Your task to perform on an android device: Check the best rated table lamp on Crate and Barrel Image 0: 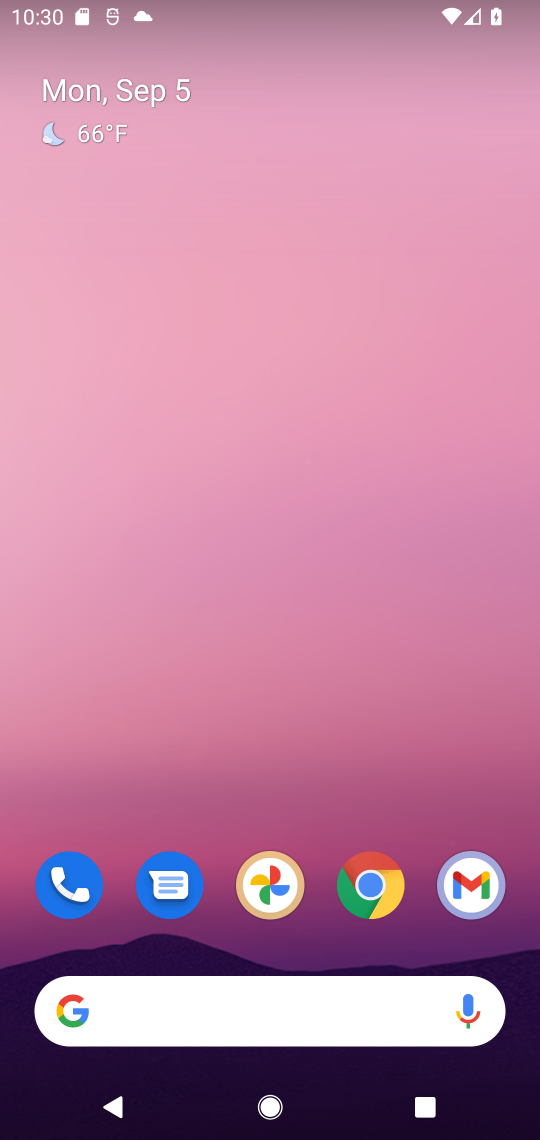
Step 0: drag from (339, 972) to (399, 23)
Your task to perform on an android device: Check the best rated table lamp on Crate and Barrel Image 1: 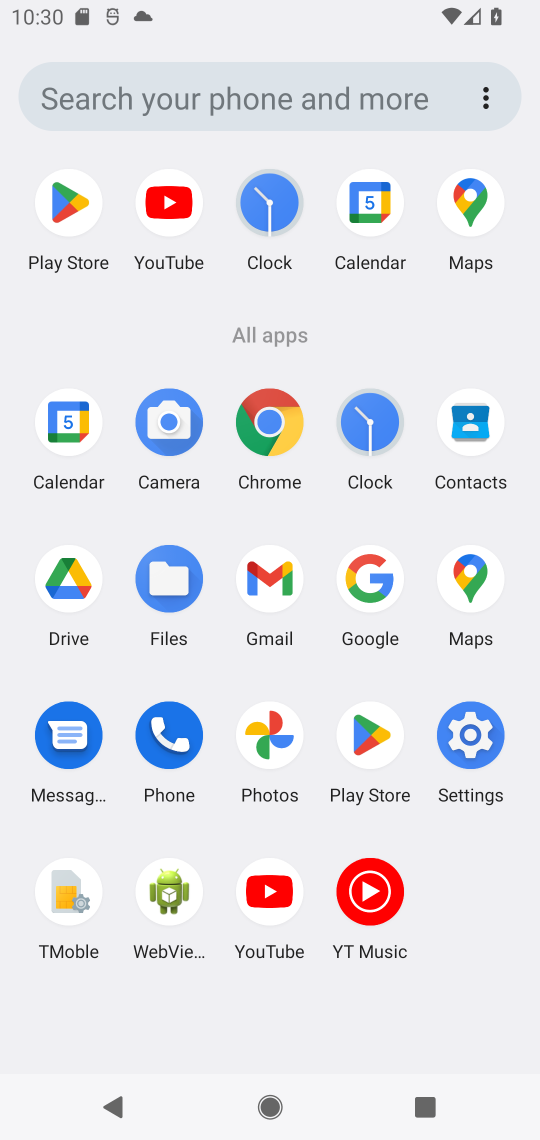
Step 1: click (268, 415)
Your task to perform on an android device: Check the best rated table lamp on Crate and Barrel Image 2: 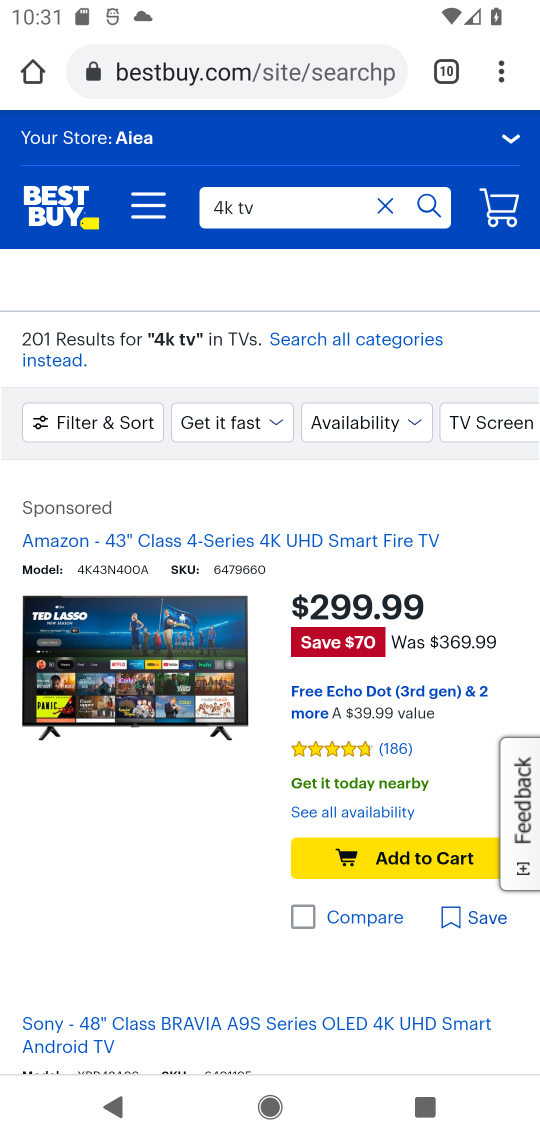
Step 2: drag from (502, 83) to (257, 230)
Your task to perform on an android device: Check the best rated table lamp on Crate and Barrel Image 3: 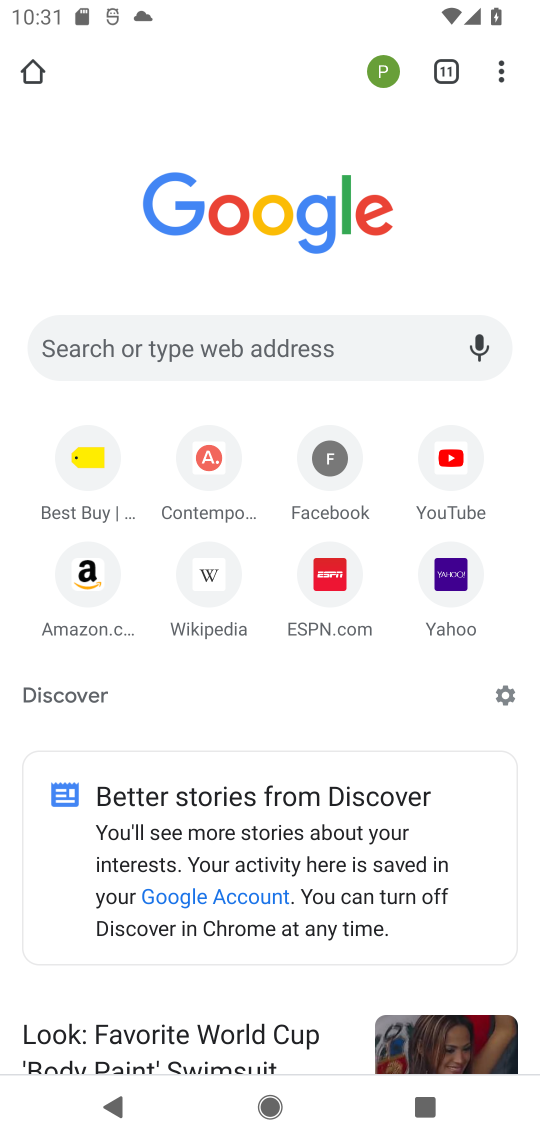
Step 3: click (287, 349)
Your task to perform on an android device: Check the best rated table lamp on Crate and Barrel Image 4: 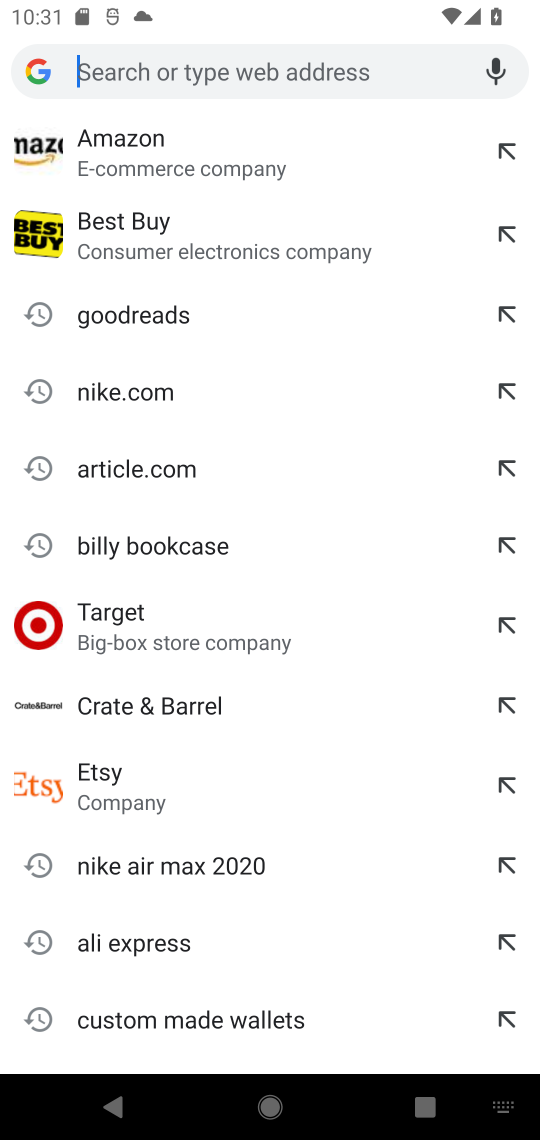
Step 4: type "Crate and Barrel"
Your task to perform on an android device: Check the best rated table lamp on Crate and Barrel Image 5: 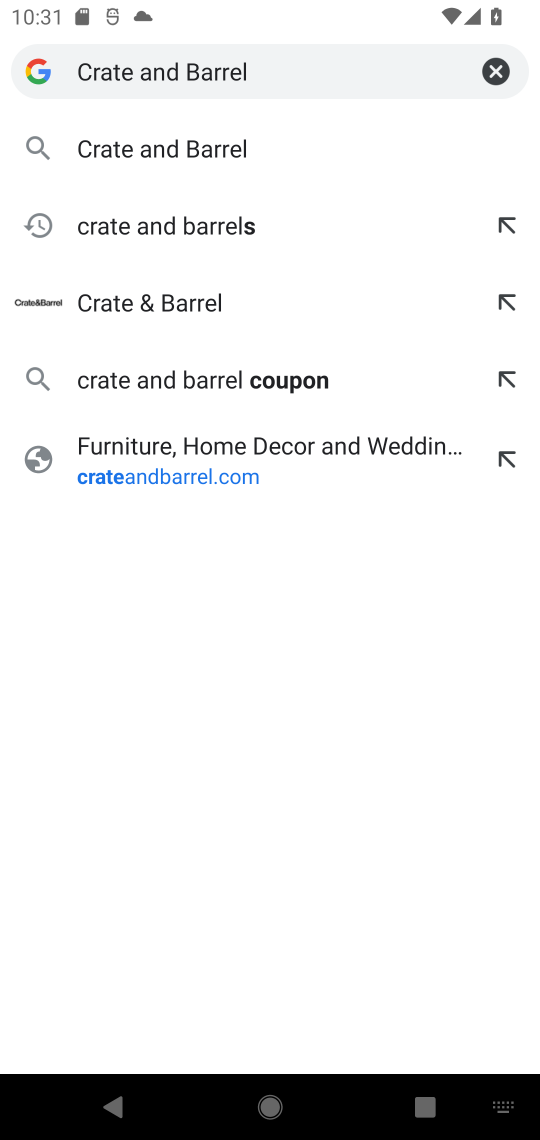
Step 5: click (185, 147)
Your task to perform on an android device: Check the best rated table lamp on Crate and Barrel Image 6: 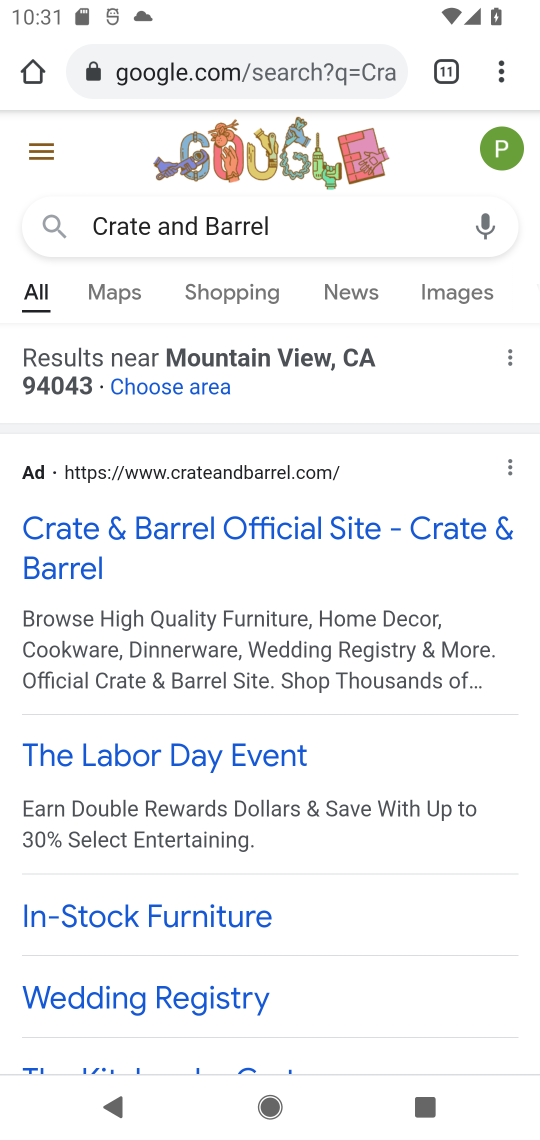
Step 6: click (178, 524)
Your task to perform on an android device: Check the best rated table lamp on Crate and Barrel Image 7: 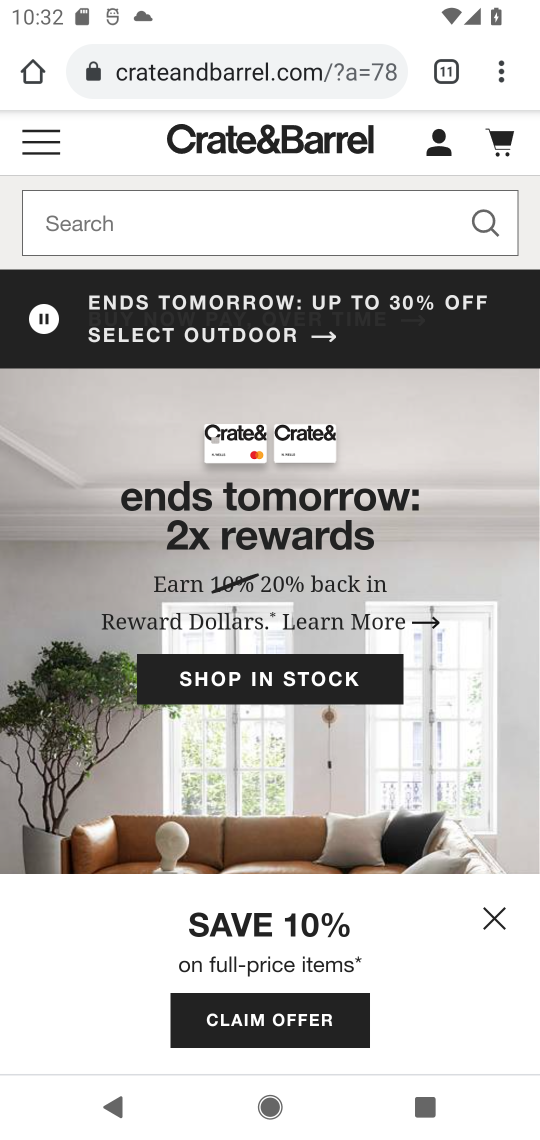
Step 7: click (220, 213)
Your task to perform on an android device: Check the best rated table lamp on Crate and Barrel Image 8: 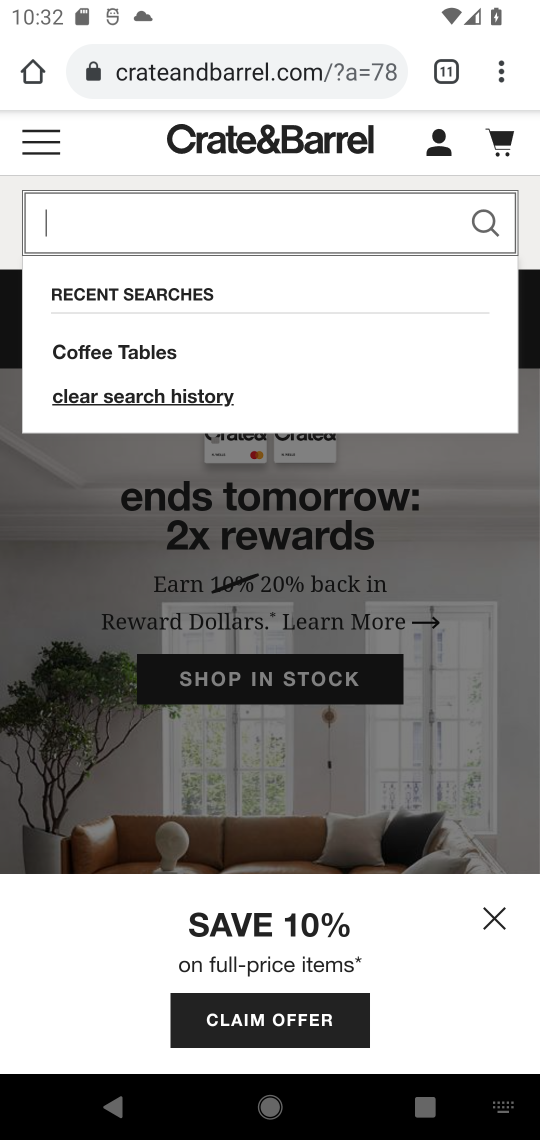
Step 8: type "table lamp "
Your task to perform on an android device: Check the best rated table lamp on Crate and Barrel Image 9: 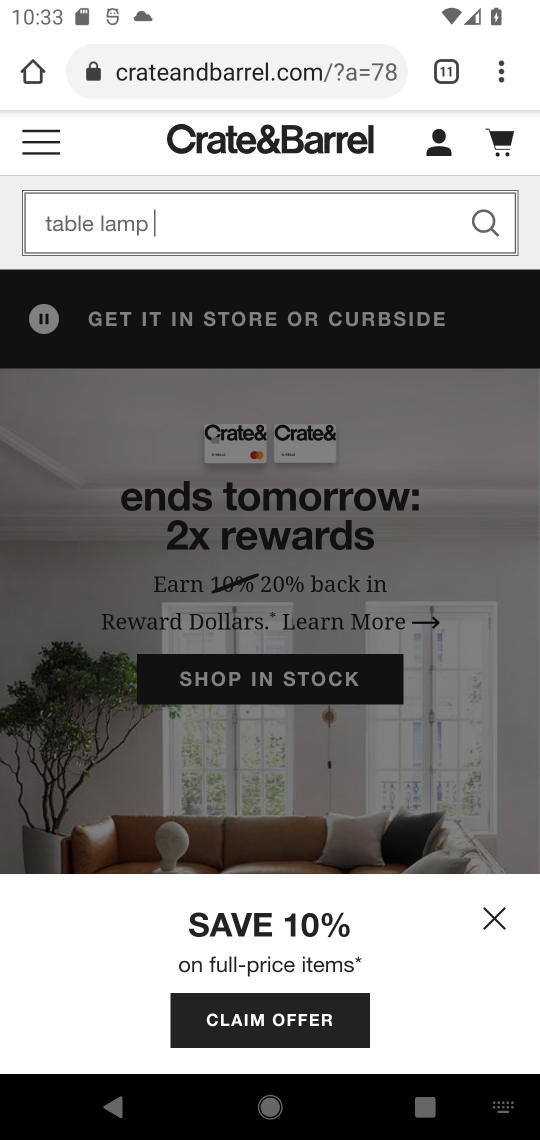
Step 9: click (483, 223)
Your task to perform on an android device: Check the best rated table lamp on Crate and Barrel Image 10: 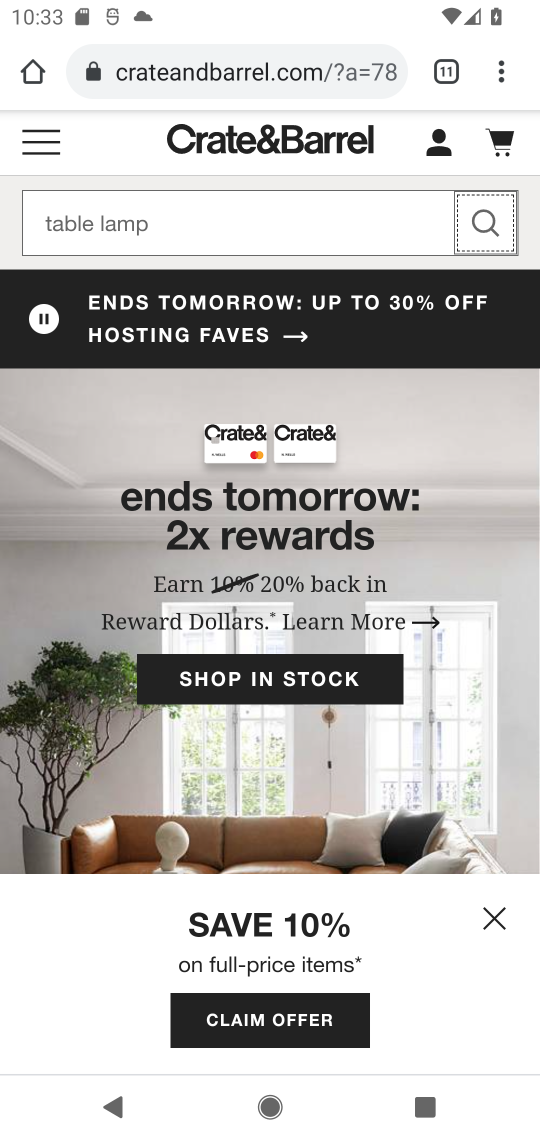
Step 10: click (486, 913)
Your task to perform on an android device: Check the best rated table lamp on Crate and Barrel Image 11: 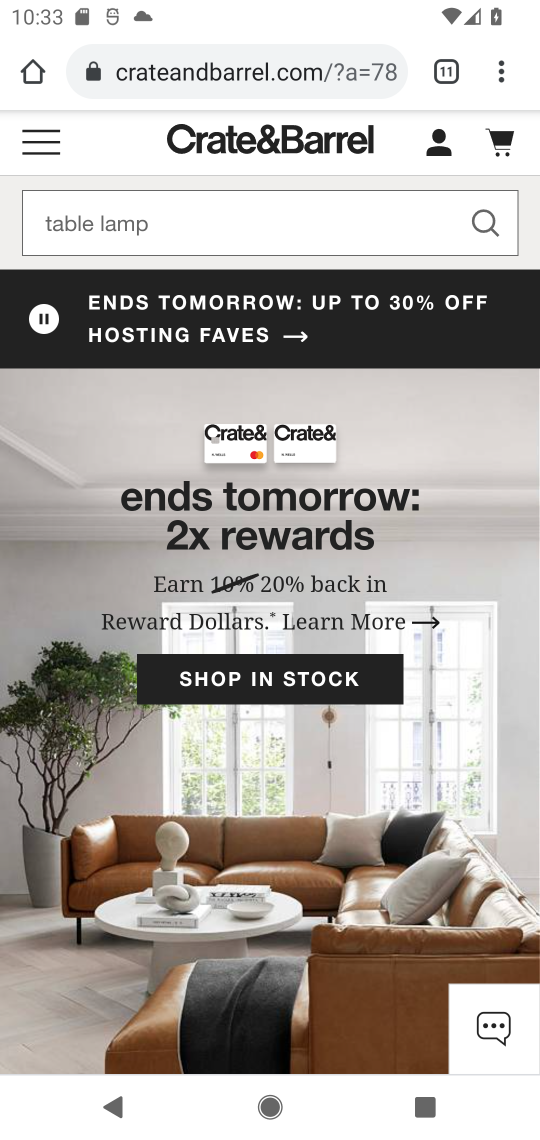
Step 11: task complete